Your task to perform on an android device: Search for the best way to get rid of a cold Image 0: 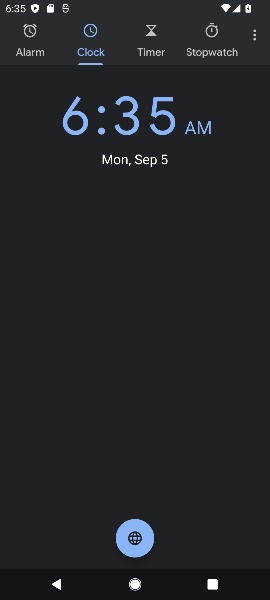
Step 0: press home button
Your task to perform on an android device: Search for the best way to get rid of a cold Image 1: 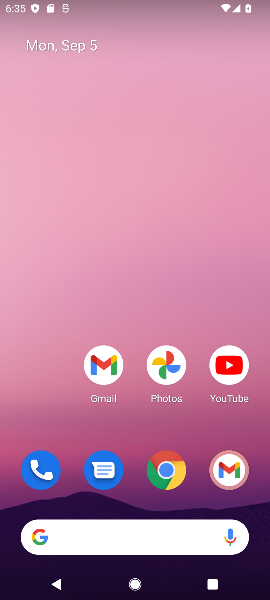
Step 1: click (153, 536)
Your task to perform on an android device: Search for the best way to get rid of a cold Image 2: 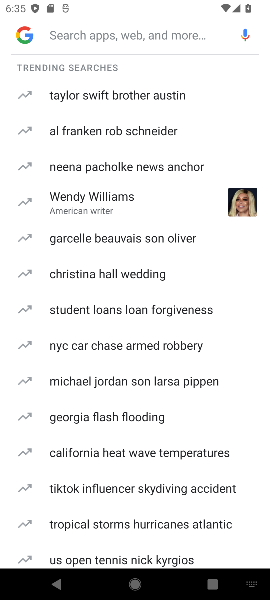
Step 2: type "best way to get rid of a cold"
Your task to perform on an android device: Search for the best way to get rid of a cold Image 3: 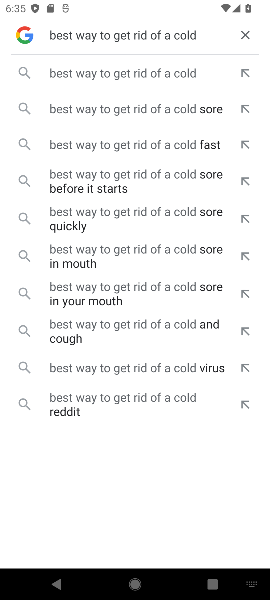
Step 3: click (132, 69)
Your task to perform on an android device: Search for the best way to get rid of a cold Image 4: 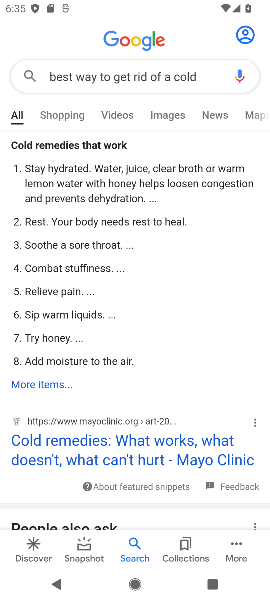
Step 4: task complete